Your task to perform on an android device: add a label to a message in the gmail app Image 0: 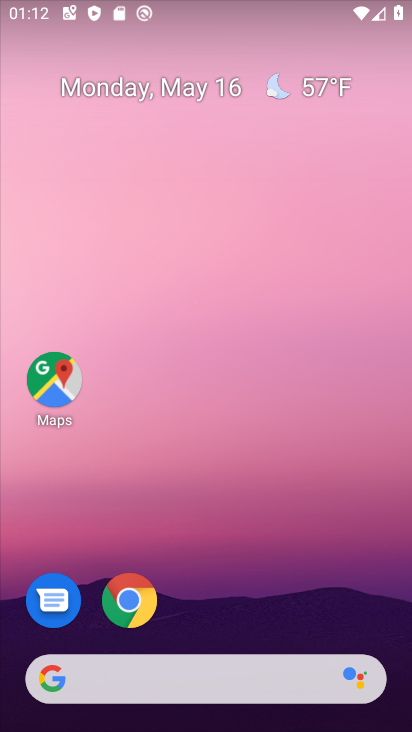
Step 0: drag from (202, 596) to (274, 188)
Your task to perform on an android device: add a label to a message in the gmail app Image 1: 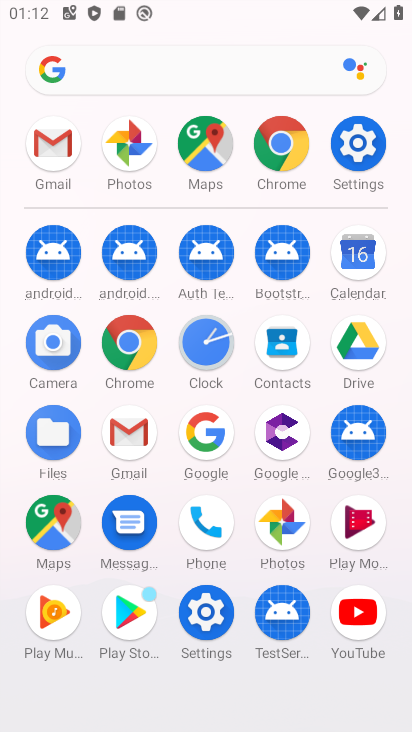
Step 1: click (51, 149)
Your task to perform on an android device: add a label to a message in the gmail app Image 2: 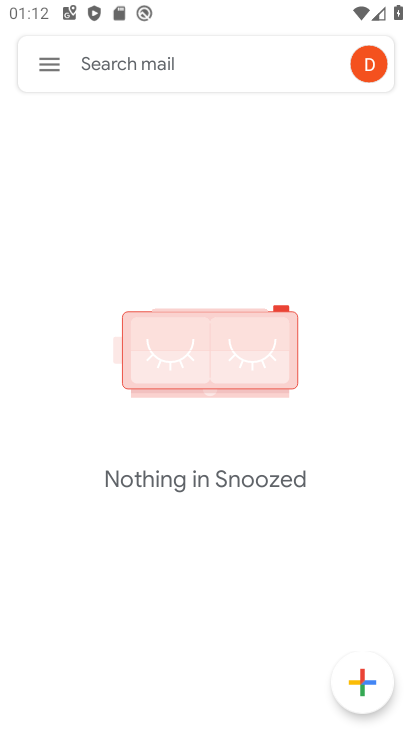
Step 2: click (53, 53)
Your task to perform on an android device: add a label to a message in the gmail app Image 3: 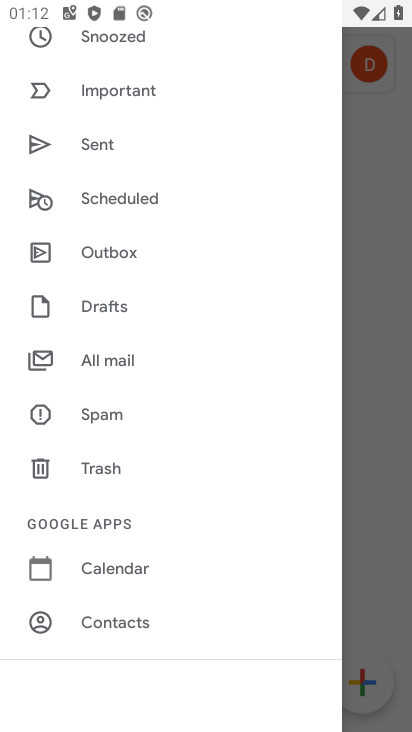
Step 3: click (120, 357)
Your task to perform on an android device: add a label to a message in the gmail app Image 4: 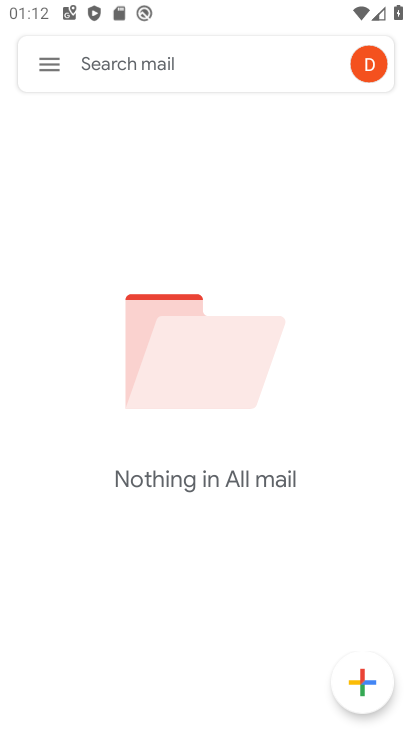
Step 4: task complete